Your task to perform on an android device: create a new album in the google photos Image 0: 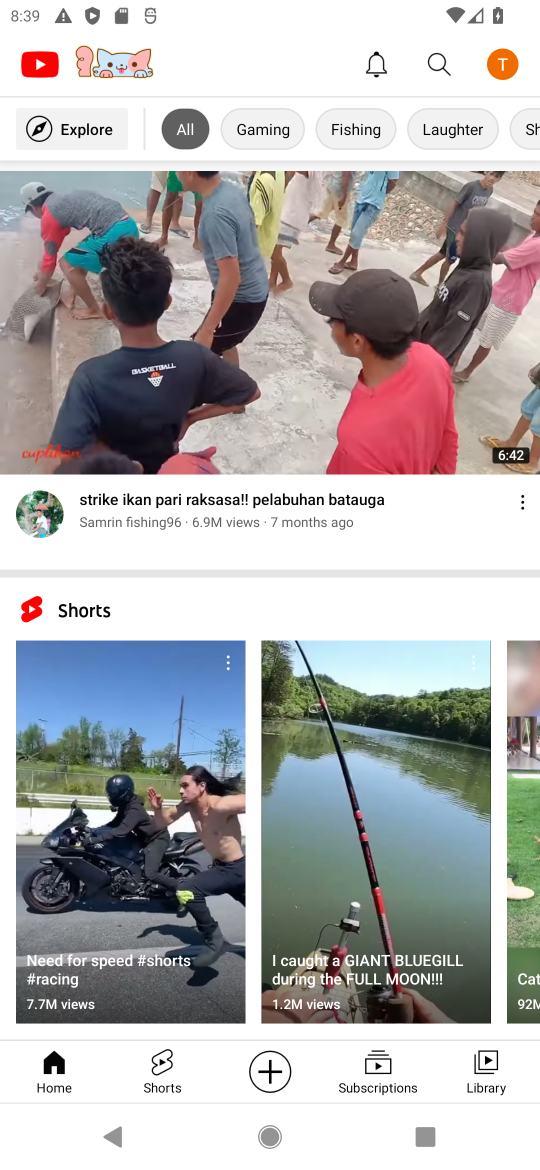
Step 0: press home button
Your task to perform on an android device: create a new album in the google photos Image 1: 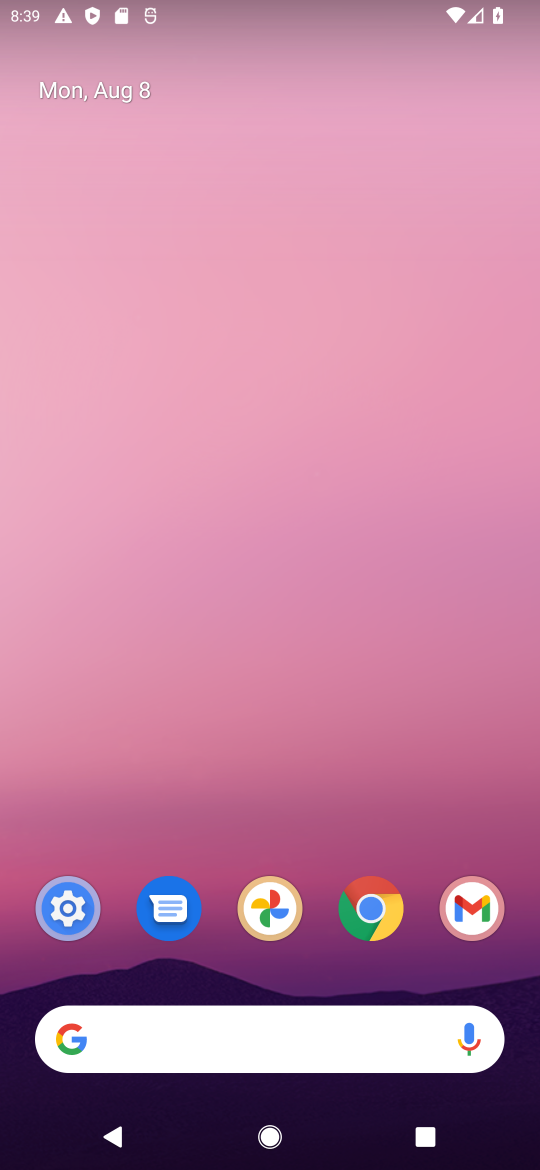
Step 1: click (263, 896)
Your task to perform on an android device: create a new album in the google photos Image 2: 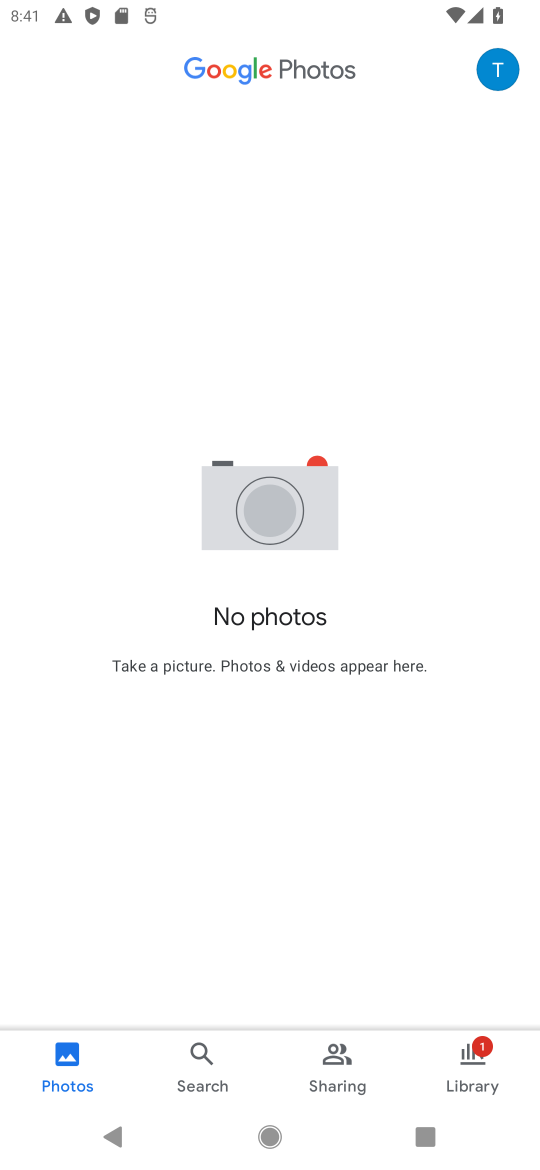
Step 2: task complete